Your task to perform on an android device: Open Google Maps Image 0: 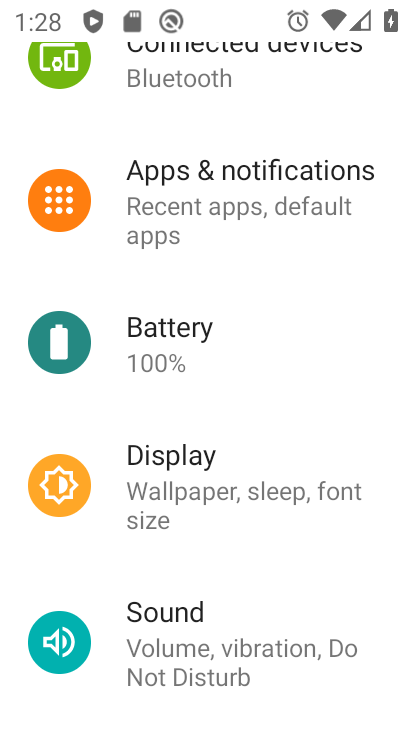
Step 0: press back button
Your task to perform on an android device: Open Google Maps Image 1: 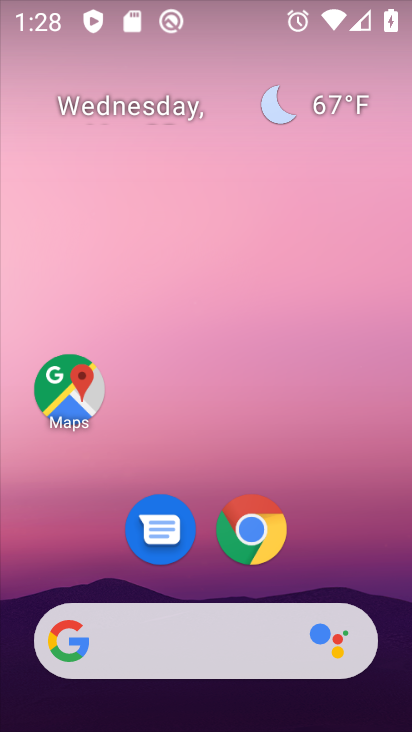
Step 1: click (70, 392)
Your task to perform on an android device: Open Google Maps Image 2: 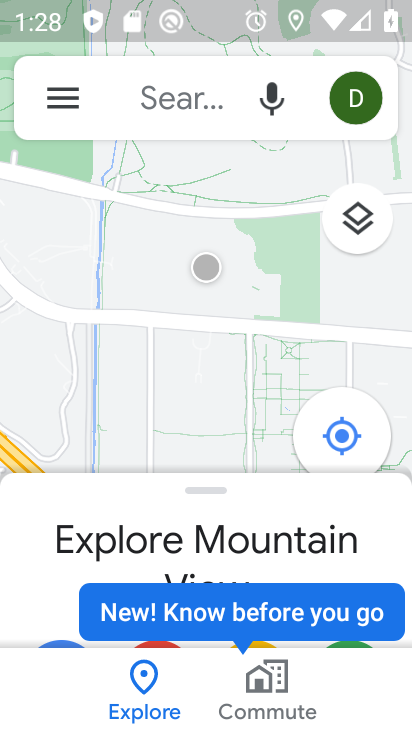
Step 2: task complete